Your task to perform on an android device: allow cookies in the chrome app Image 0: 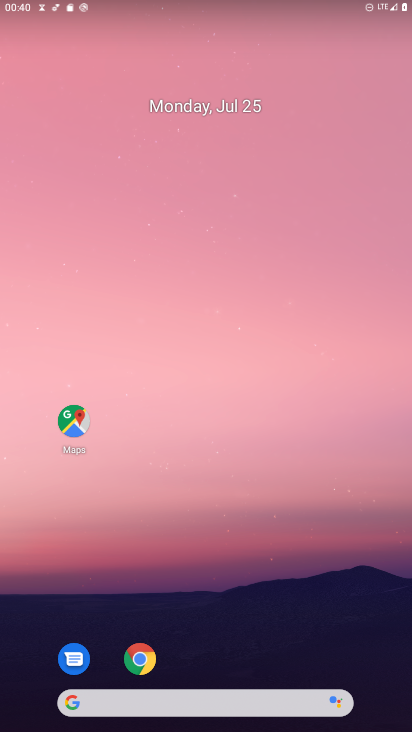
Step 0: drag from (279, 562) to (271, 171)
Your task to perform on an android device: allow cookies in the chrome app Image 1: 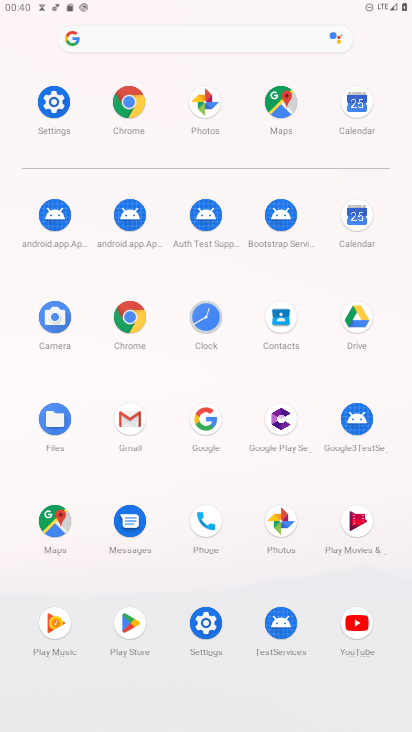
Step 1: click (127, 109)
Your task to perform on an android device: allow cookies in the chrome app Image 2: 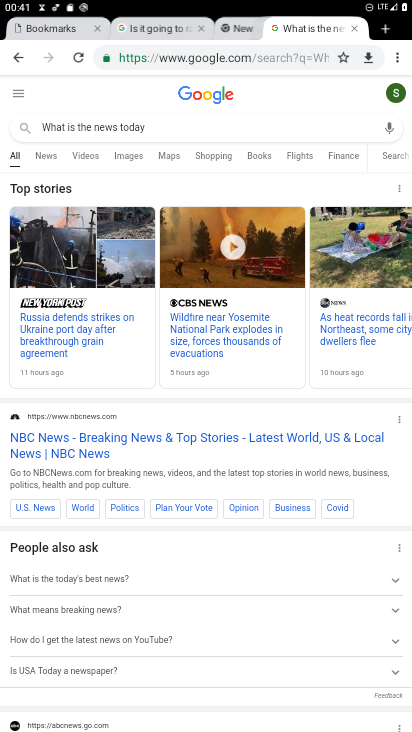
Step 2: click (407, 57)
Your task to perform on an android device: allow cookies in the chrome app Image 3: 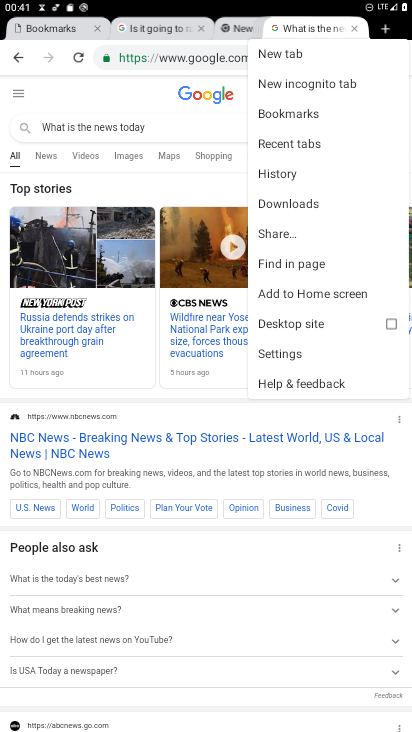
Step 3: click (292, 348)
Your task to perform on an android device: allow cookies in the chrome app Image 4: 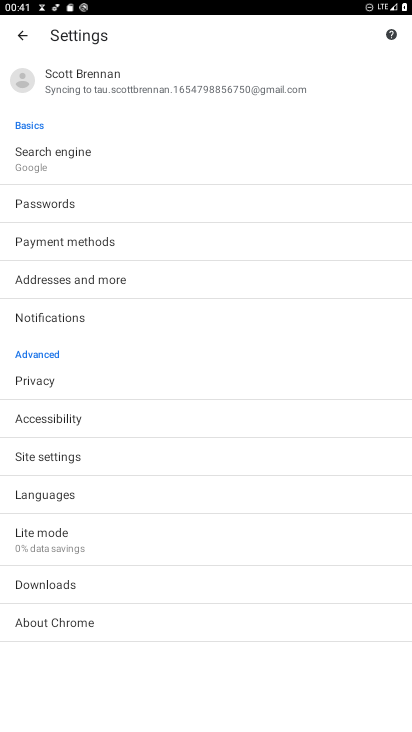
Step 4: click (87, 460)
Your task to perform on an android device: allow cookies in the chrome app Image 5: 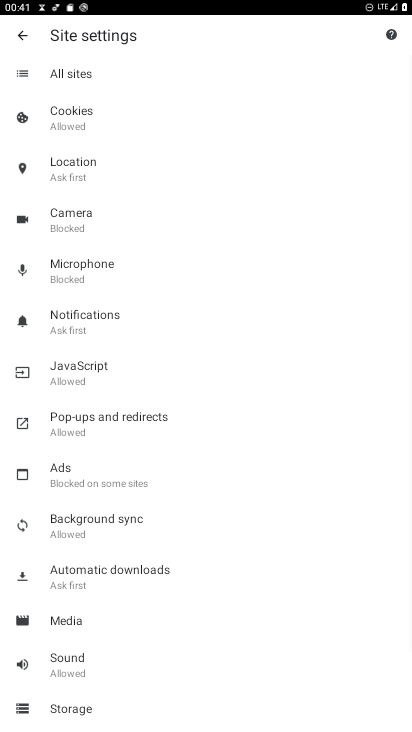
Step 5: click (103, 115)
Your task to perform on an android device: allow cookies in the chrome app Image 6: 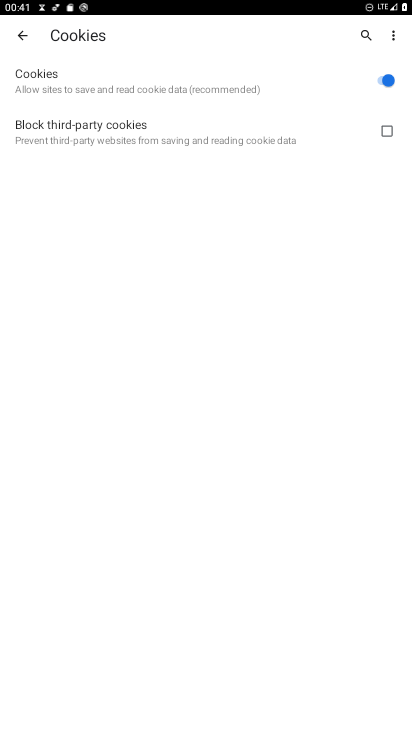
Step 6: task complete